Your task to perform on an android device: snooze an email in the gmail app Image 0: 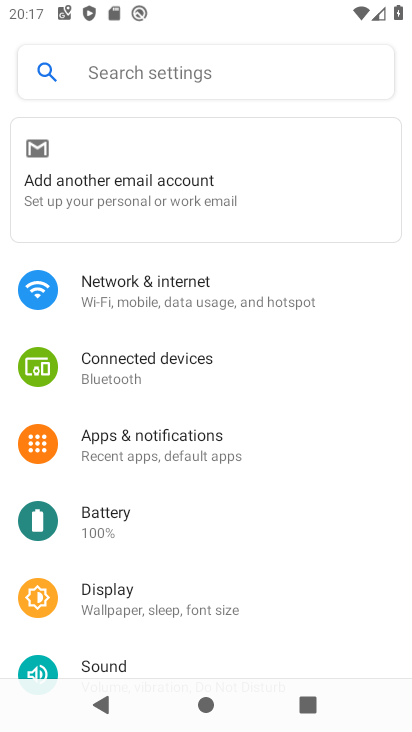
Step 0: press home button
Your task to perform on an android device: snooze an email in the gmail app Image 1: 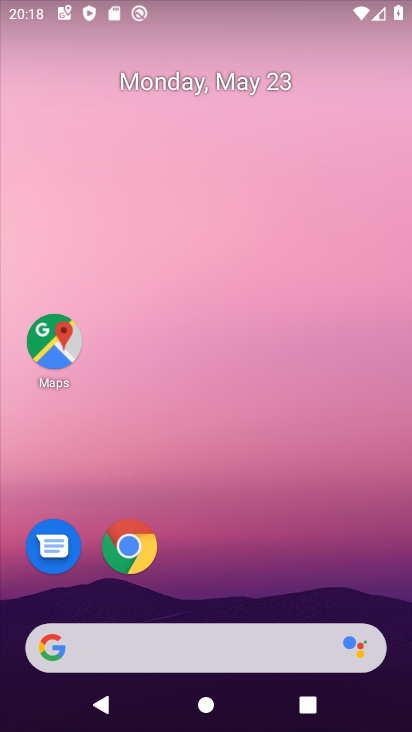
Step 1: drag from (388, 591) to (361, 258)
Your task to perform on an android device: snooze an email in the gmail app Image 2: 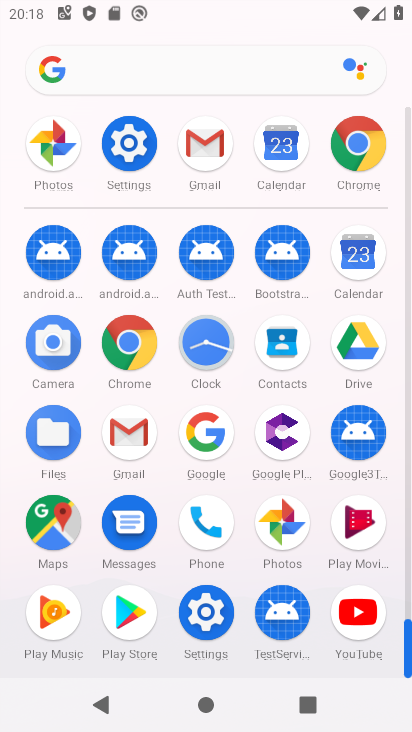
Step 2: click (135, 450)
Your task to perform on an android device: snooze an email in the gmail app Image 3: 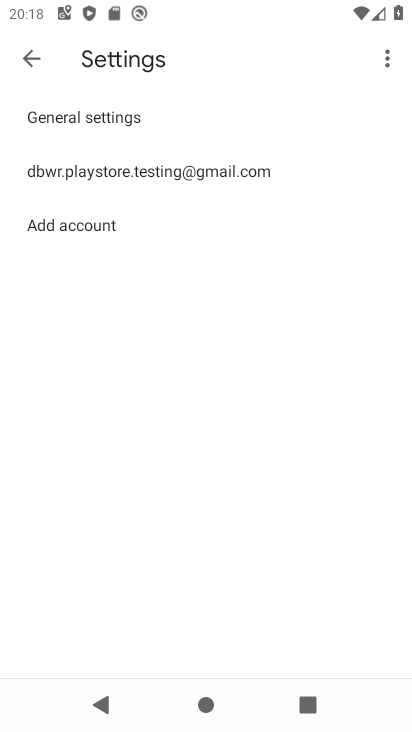
Step 3: press back button
Your task to perform on an android device: snooze an email in the gmail app Image 4: 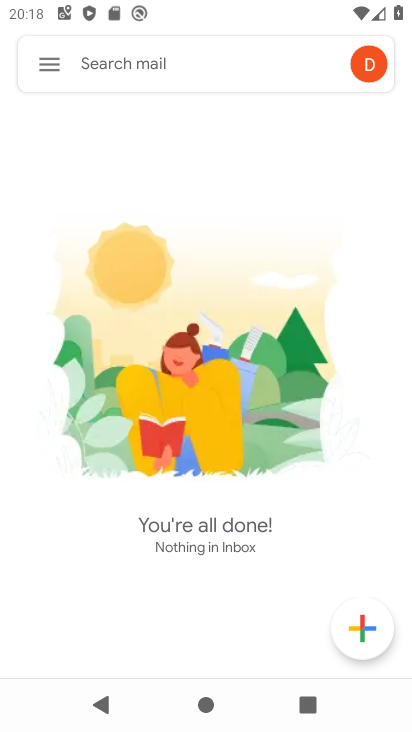
Step 4: click (44, 56)
Your task to perform on an android device: snooze an email in the gmail app Image 5: 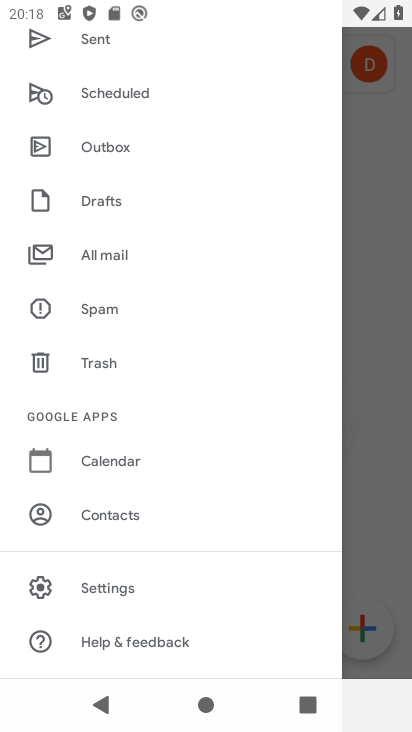
Step 5: drag from (271, 559) to (278, 469)
Your task to perform on an android device: snooze an email in the gmail app Image 6: 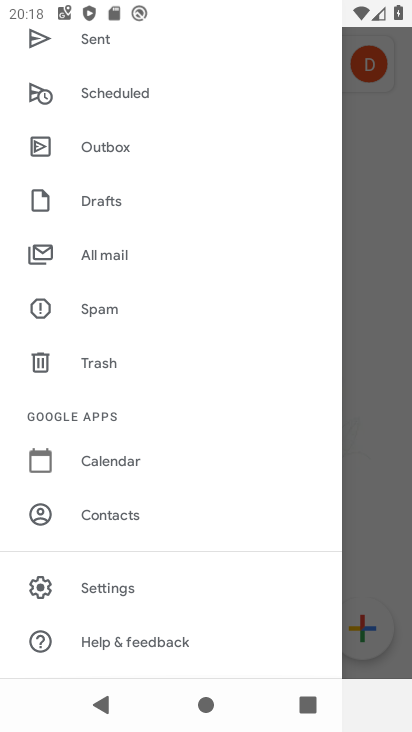
Step 6: drag from (268, 346) to (250, 443)
Your task to perform on an android device: snooze an email in the gmail app Image 7: 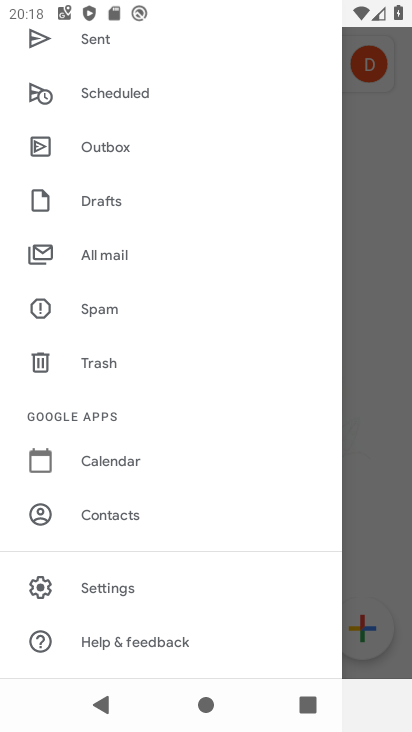
Step 7: drag from (262, 279) to (250, 406)
Your task to perform on an android device: snooze an email in the gmail app Image 8: 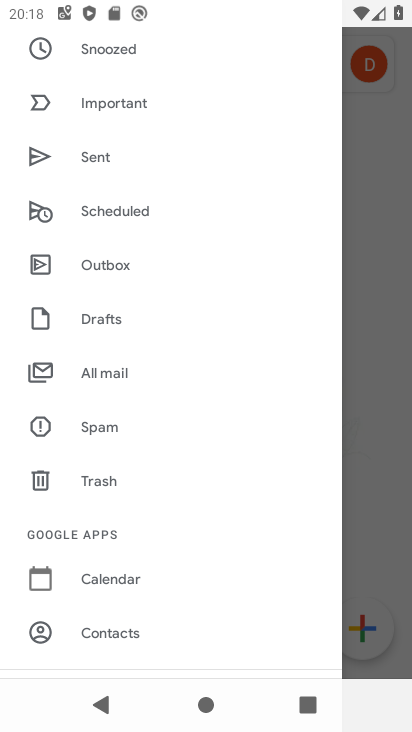
Step 8: drag from (257, 274) to (249, 394)
Your task to perform on an android device: snooze an email in the gmail app Image 9: 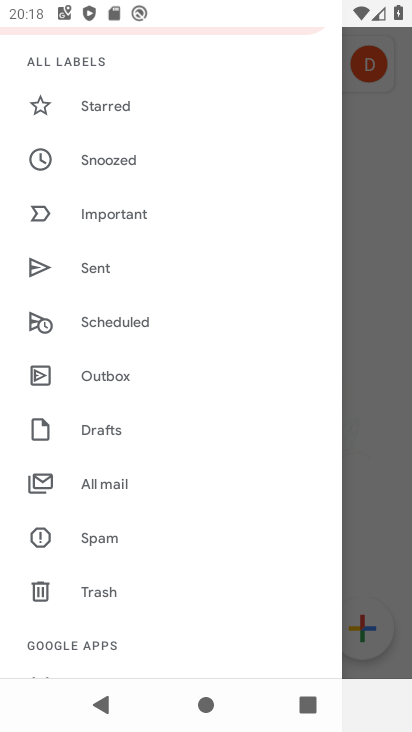
Step 9: drag from (263, 248) to (265, 375)
Your task to perform on an android device: snooze an email in the gmail app Image 10: 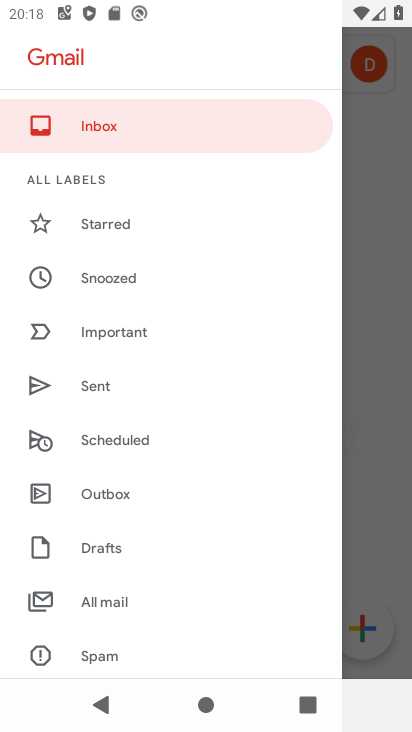
Step 10: drag from (267, 227) to (246, 329)
Your task to perform on an android device: snooze an email in the gmail app Image 11: 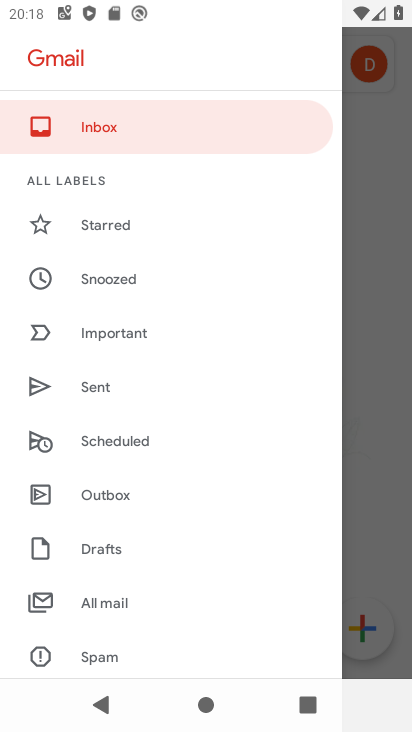
Step 11: click (132, 289)
Your task to perform on an android device: snooze an email in the gmail app Image 12: 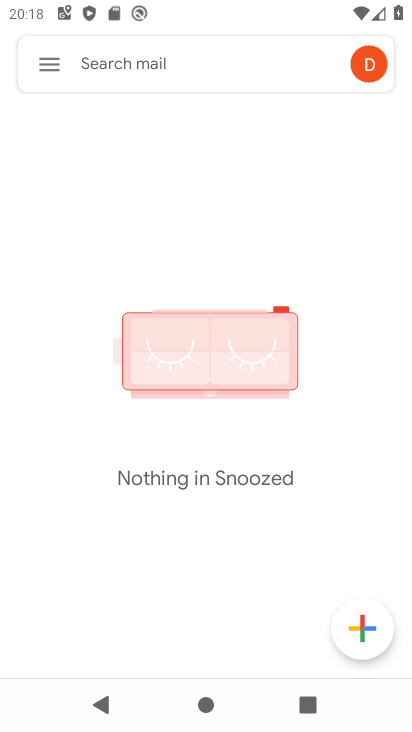
Step 12: task complete